Your task to perform on an android device: Go to notification settings Image 0: 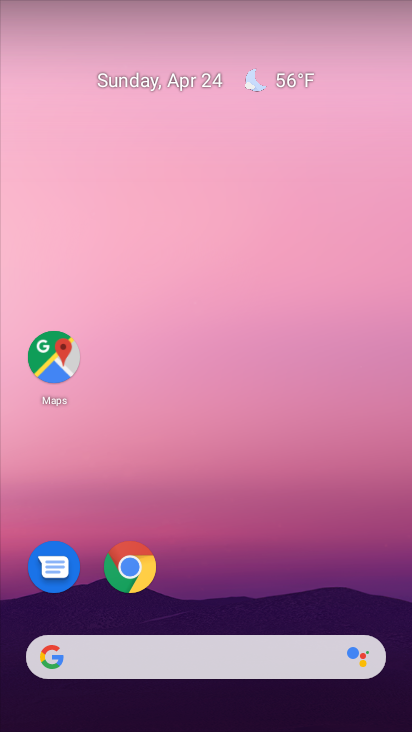
Step 0: click (358, 95)
Your task to perform on an android device: Go to notification settings Image 1: 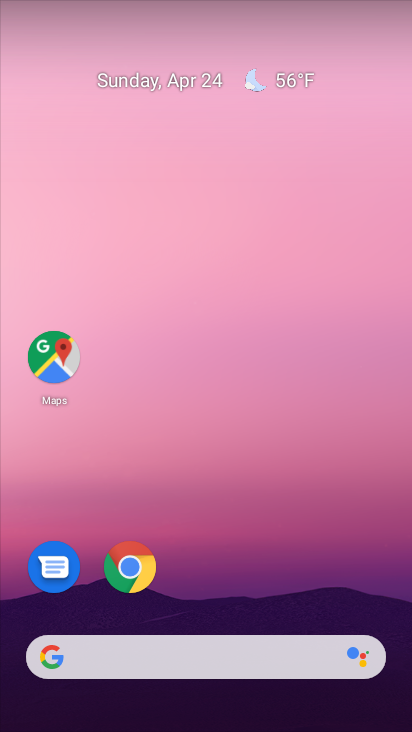
Step 1: drag from (379, 290) to (373, 159)
Your task to perform on an android device: Go to notification settings Image 2: 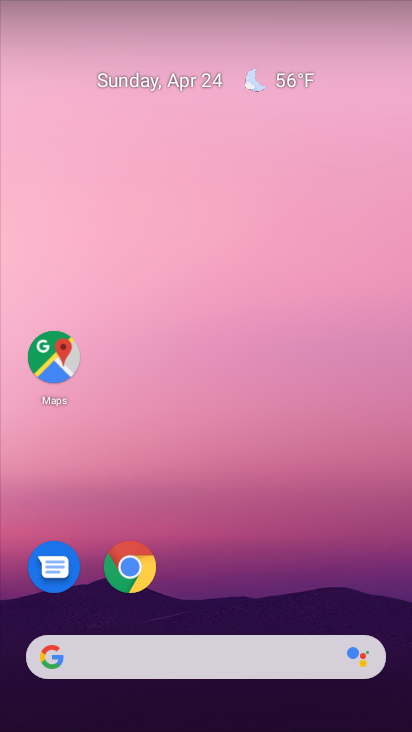
Step 2: click (353, 151)
Your task to perform on an android device: Go to notification settings Image 3: 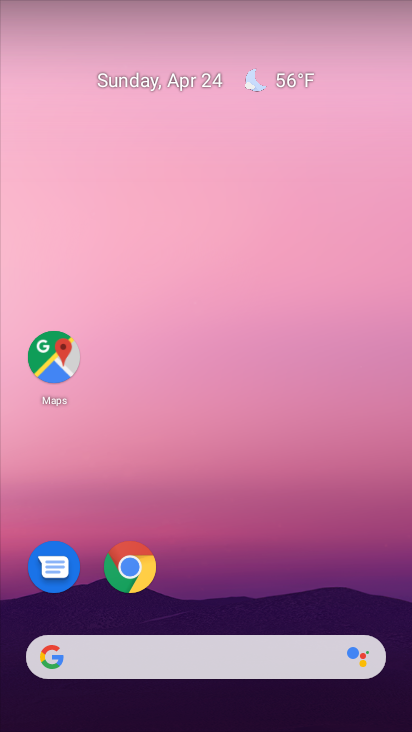
Step 3: drag from (329, 332) to (307, 115)
Your task to perform on an android device: Go to notification settings Image 4: 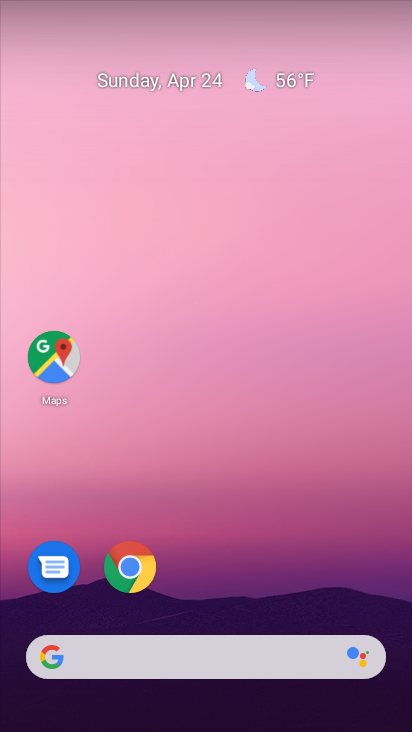
Step 4: click (398, 79)
Your task to perform on an android device: Go to notification settings Image 5: 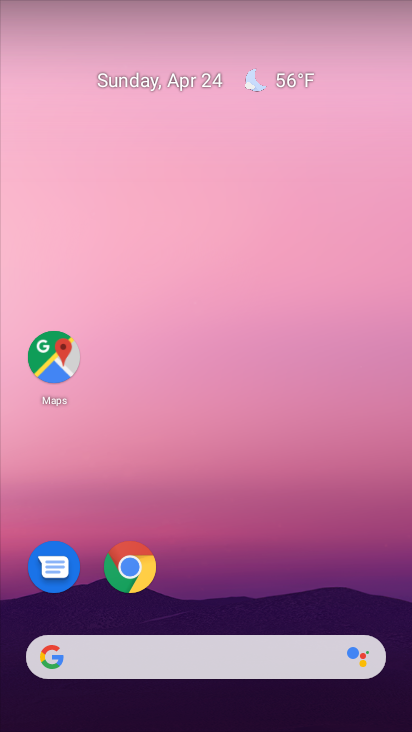
Step 5: click (351, 142)
Your task to perform on an android device: Go to notification settings Image 6: 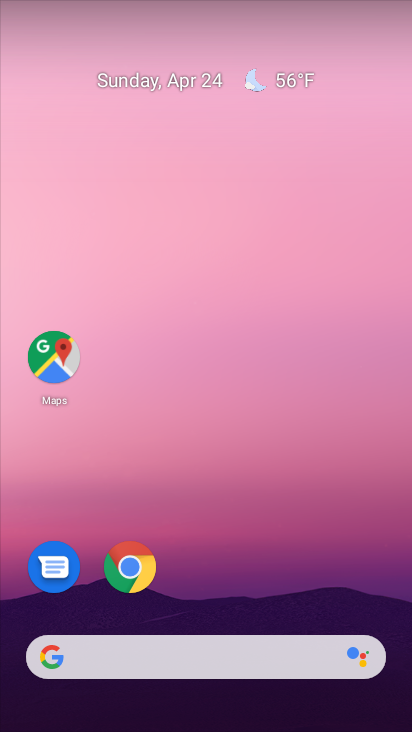
Step 6: click (383, 39)
Your task to perform on an android device: Go to notification settings Image 7: 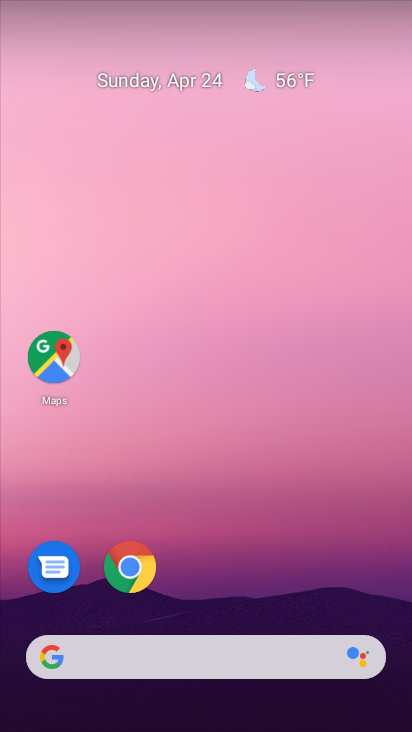
Step 7: drag from (361, 43) to (406, 368)
Your task to perform on an android device: Go to notification settings Image 8: 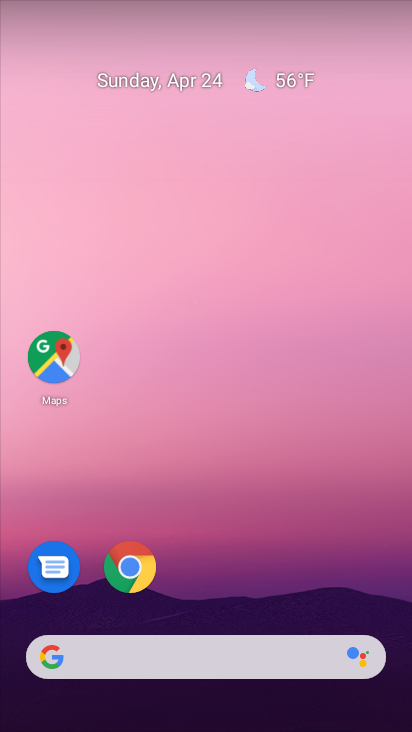
Step 8: drag from (381, 385) to (343, 78)
Your task to perform on an android device: Go to notification settings Image 9: 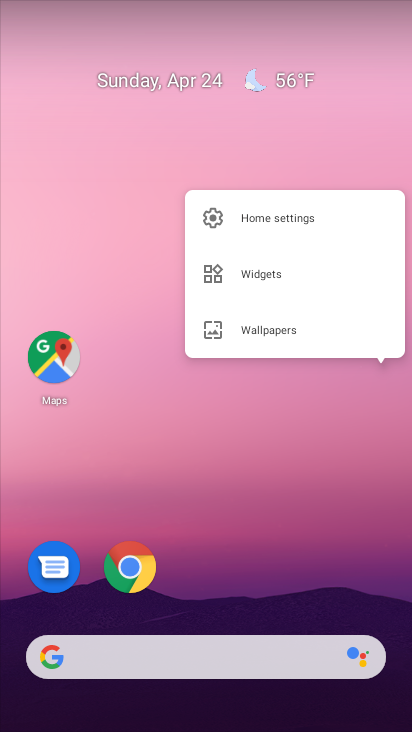
Step 9: click (37, 199)
Your task to perform on an android device: Go to notification settings Image 10: 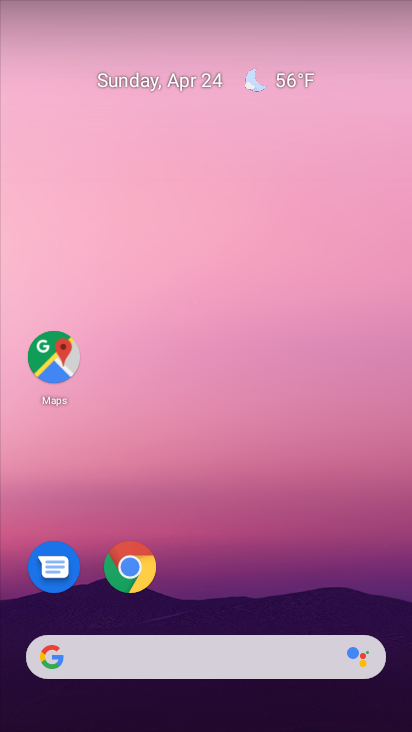
Step 10: drag from (359, 331) to (340, 113)
Your task to perform on an android device: Go to notification settings Image 11: 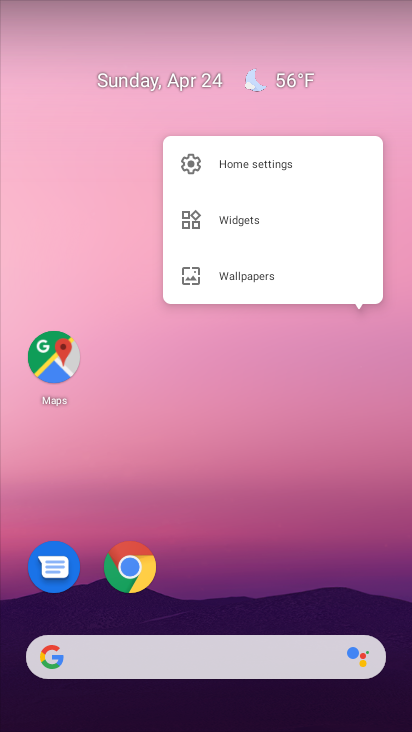
Step 11: click (358, 466)
Your task to perform on an android device: Go to notification settings Image 12: 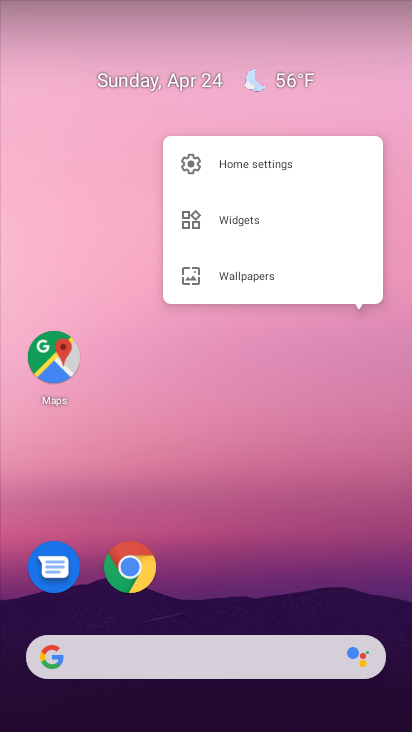
Step 12: click (62, 229)
Your task to perform on an android device: Go to notification settings Image 13: 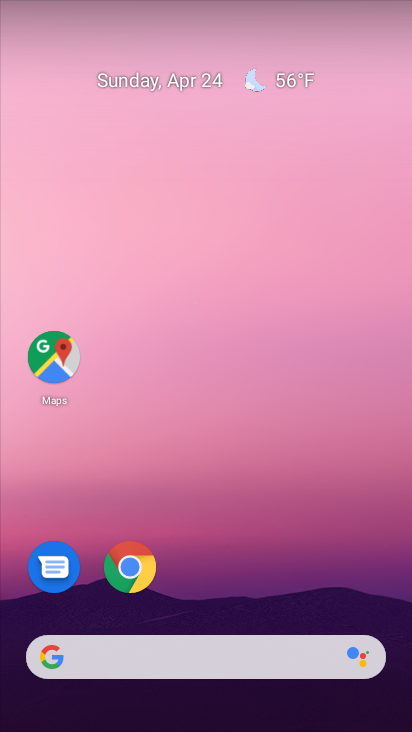
Step 13: click (393, 63)
Your task to perform on an android device: Go to notification settings Image 14: 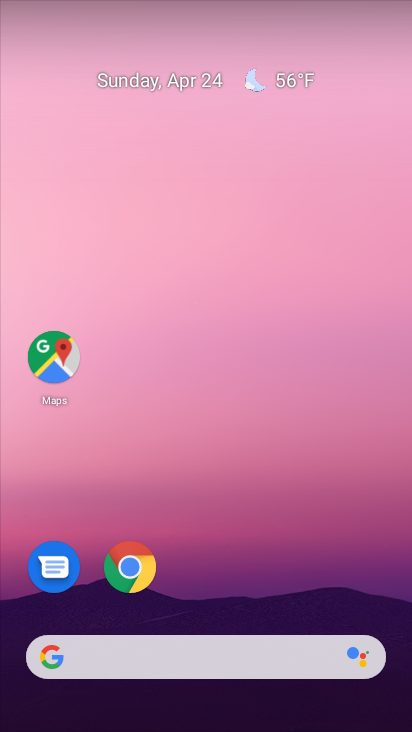
Step 14: click (393, 232)
Your task to perform on an android device: Go to notification settings Image 15: 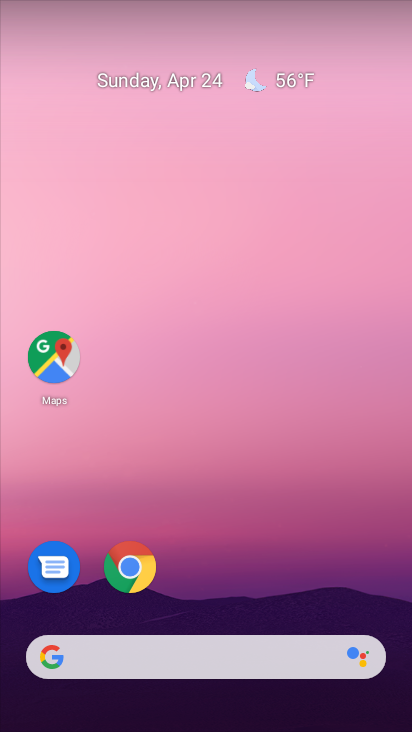
Step 15: click (390, 175)
Your task to perform on an android device: Go to notification settings Image 16: 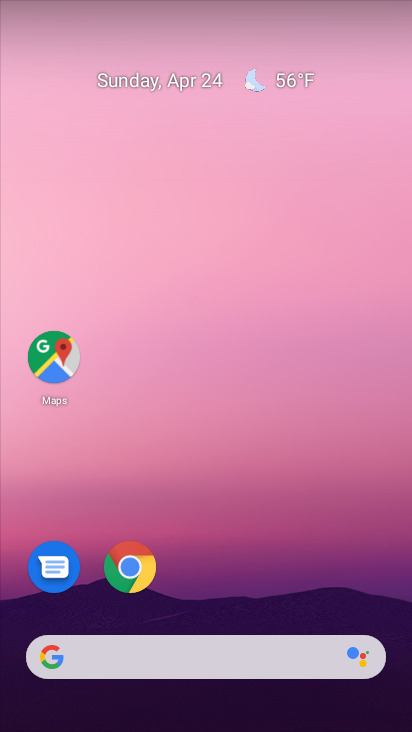
Step 16: click (368, 162)
Your task to perform on an android device: Go to notification settings Image 17: 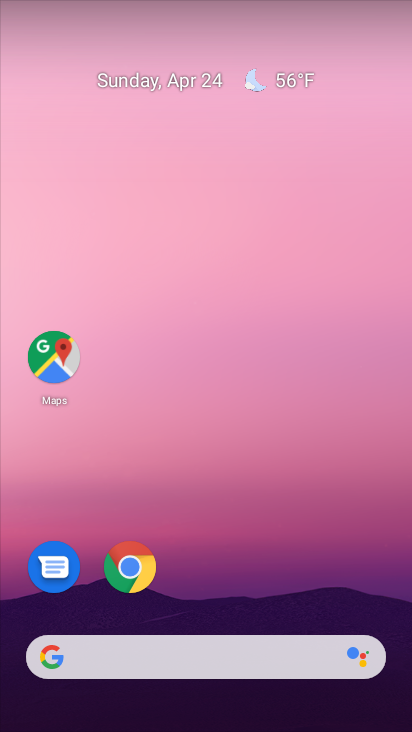
Step 17: drag from (387, 89) to (316, 27)
Your task to perform on an android device: Go to notification settings Image 18: 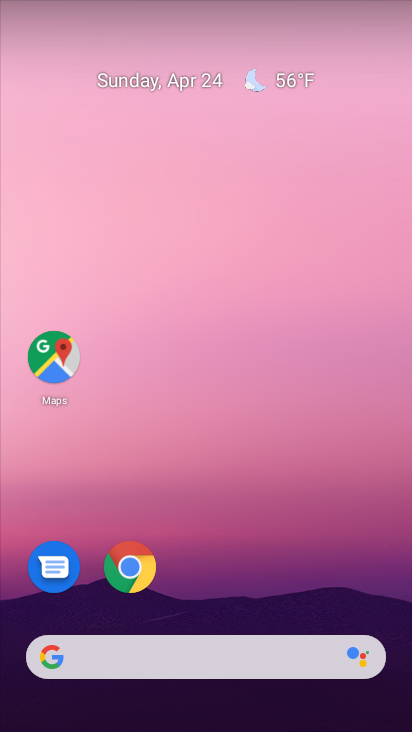
Step 18: drag from (372, 606) to (312, 104)
Your task to perform on an android device: Go to notification settings Image 19: 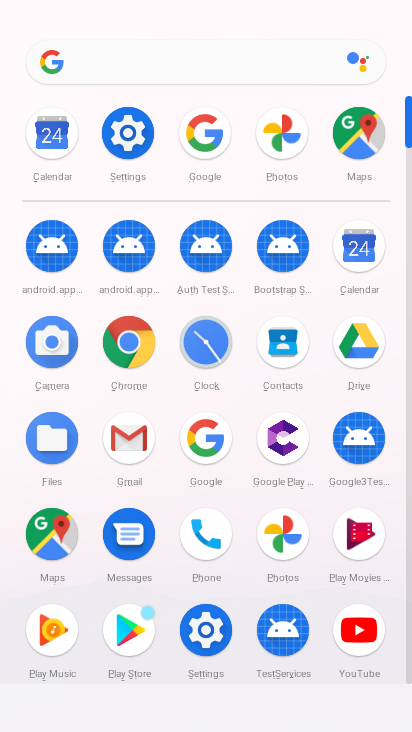
Step 19: click (130, 135)
Your task to perform on an android device: Go to notification settings Image 20: 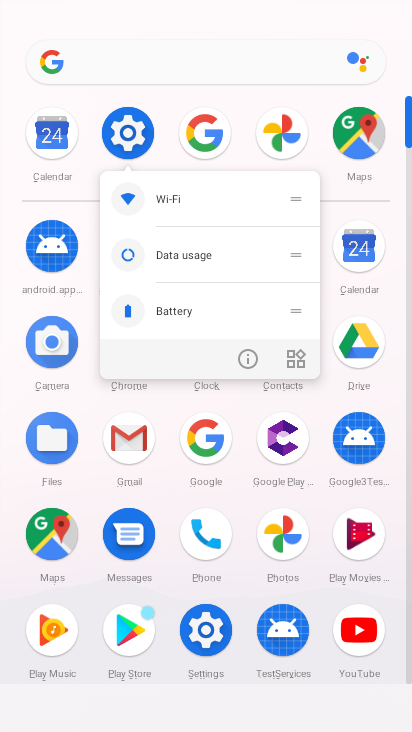
Step 20: click (130, 135)
Your task to perform on an android device: Go to notification settings Image 21: 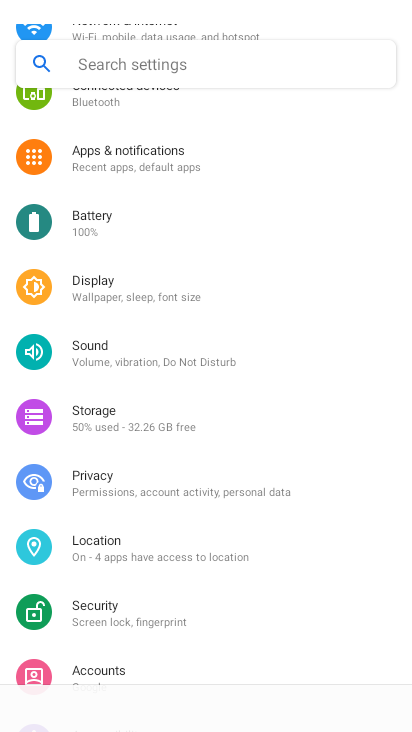
Step 21: click (139, 160)
Your task to perform on an android device: Go to notification settings Image 22: 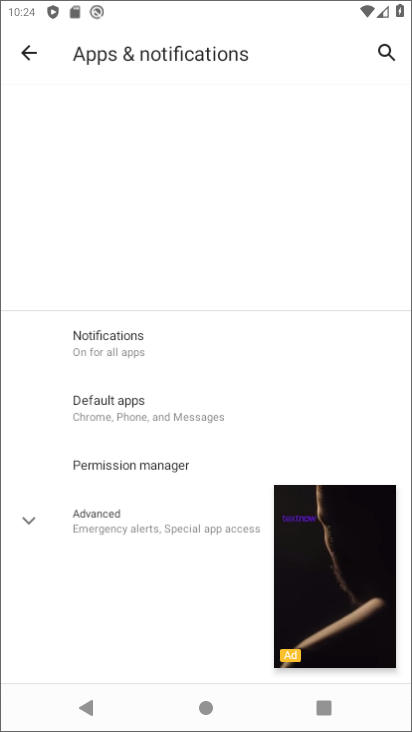
Step 22: click (139, 160)
Your task to perform on an android device: Go to notification settings Image 23: 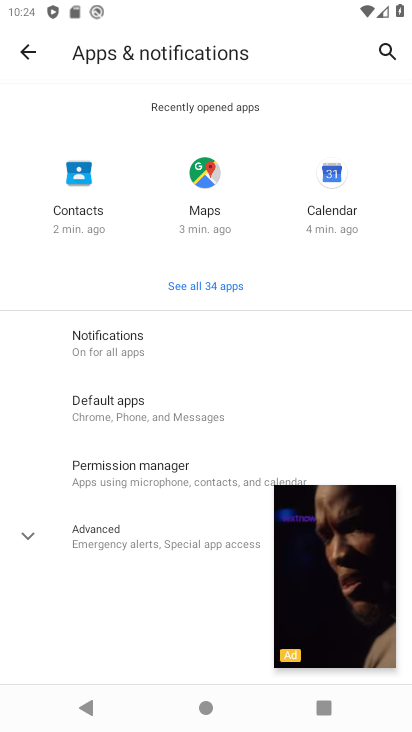
Step 23: click (104, 345)
Your task to perform on an android device: Go to notification settings Image 24: 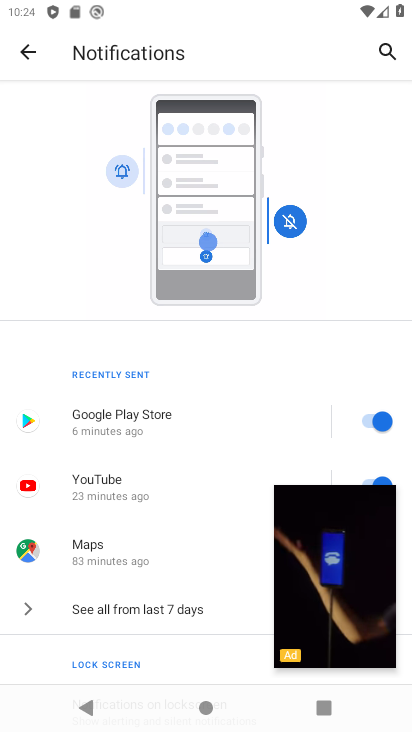
Step 24: task complete